Your task to perform on an android device: toggle javascript in the chrome app Image 0: 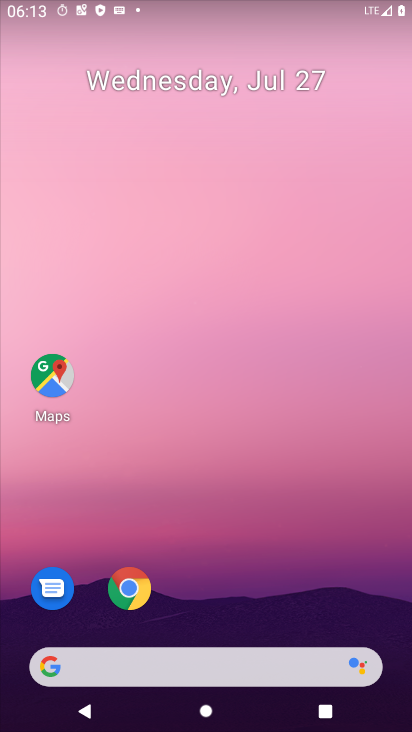
Step 0: drag from (286, 654) to (290, 47)
Your task to perform on an android device: toggle javascript in the chrome app Image 1: 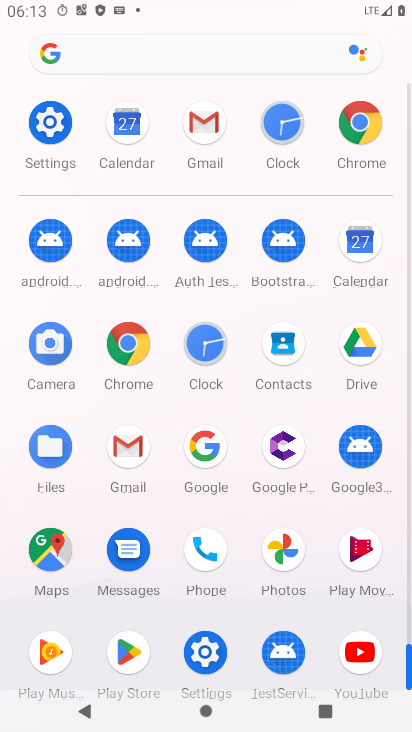
Step 1: click (112, 340)
Your task to perform on an android device: toggle javascript in the chrome app Image 2: 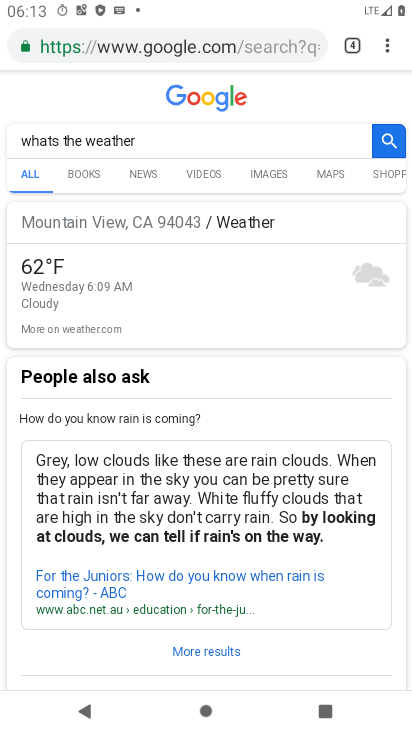
Step 2: click (391, 42)
Your task to perform on an android device: toggle javascript in the chrome app Image 3: 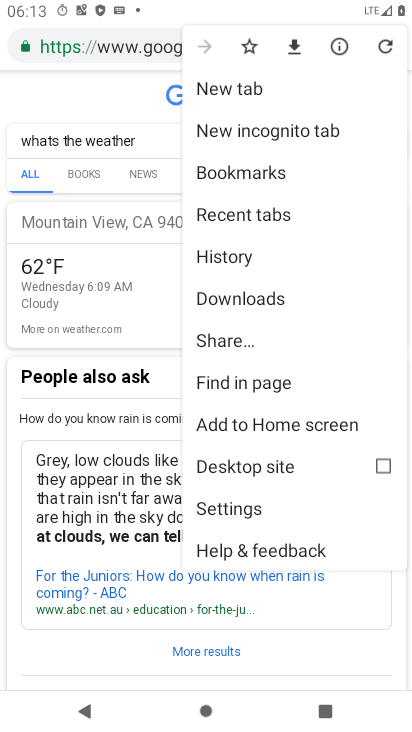
Step 3: click (260, 511)
Your task to perform on an android device: toggle javascript in the chrome app Image 4: 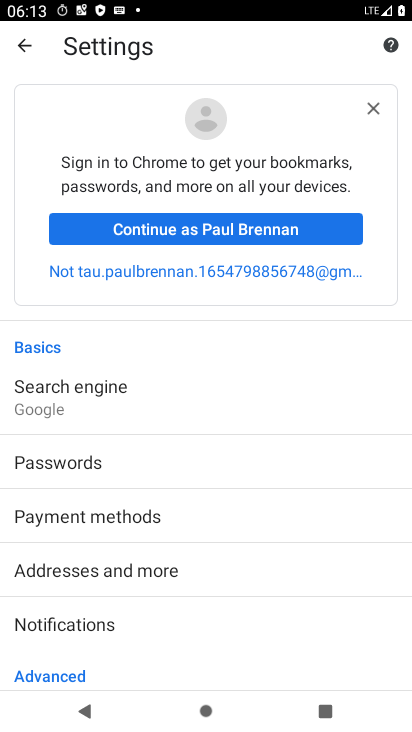
Step 4: drag from (173, 590) to (244, 169)
Your task to perform on an android device: toggle javascript in the chrome app Image 5: 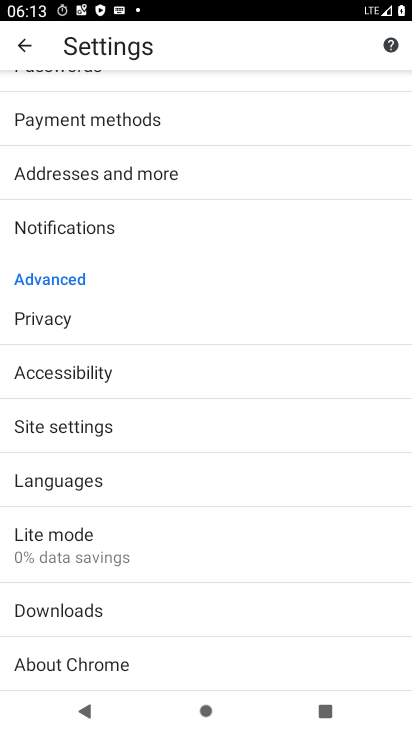
Step 5: click (85, 433)
Your task to perform on an android device: toggle javascript in the chrome app Image 6: 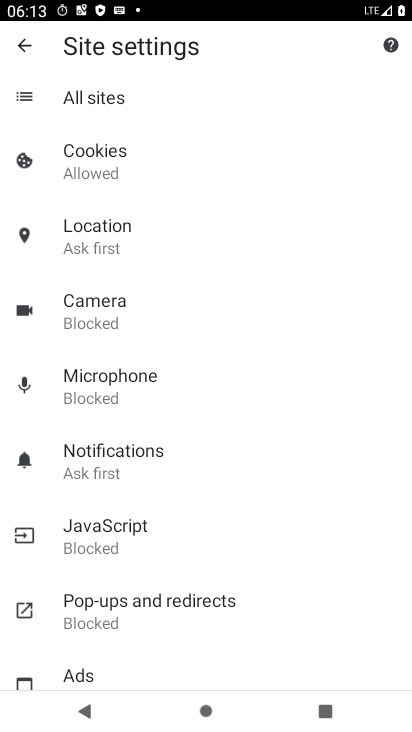
Step 6: click (90, 533)
Your task to perform on an android device: toggle javascript in the chrome app Image 7: 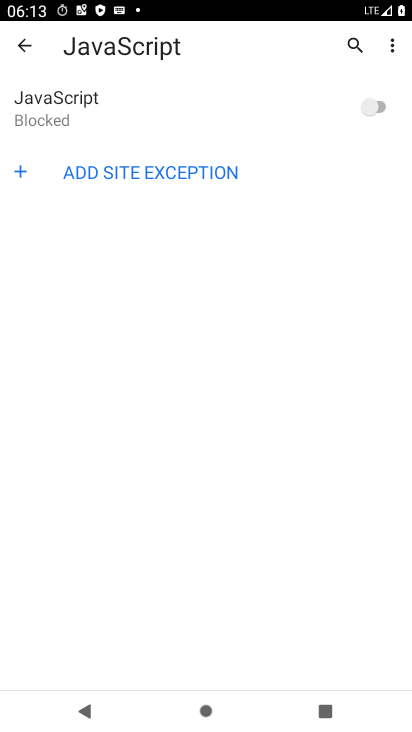
Step 7: click (384, 107)
Your task to perform on an android device: toggle javascript in the chrome app Image 8: 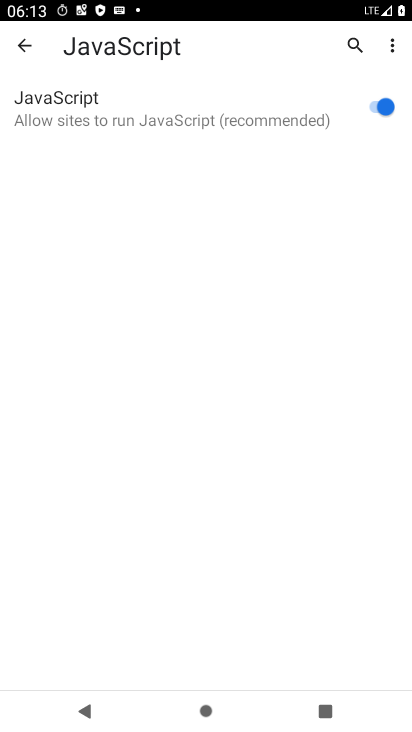
Step 8: task complete